Your task to perform on an android device: Find coffee shops on Maps Image 0: 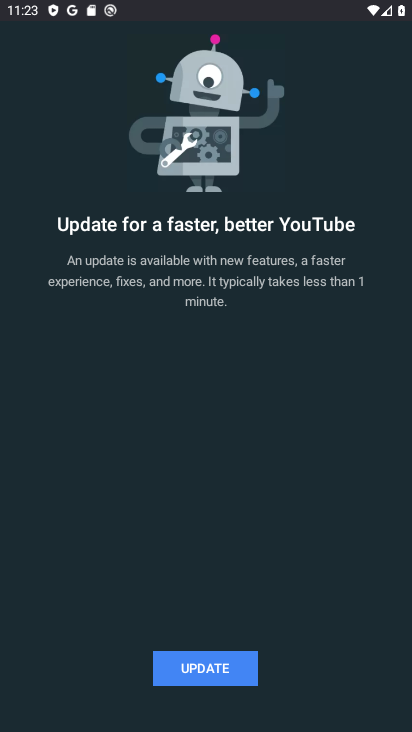
Step 0: press home button
Your task to perform on an android device: Find coffee shops on Maps Image 1: 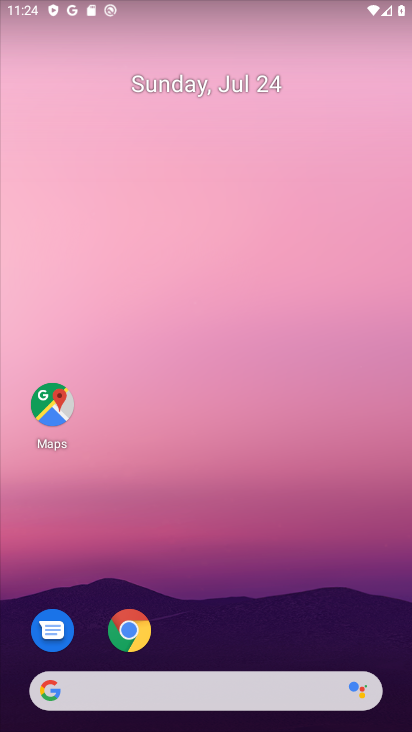
Step 1: click (29, 403)
Your task to perform on an android device: Find coffee shops on Maps Image 2: 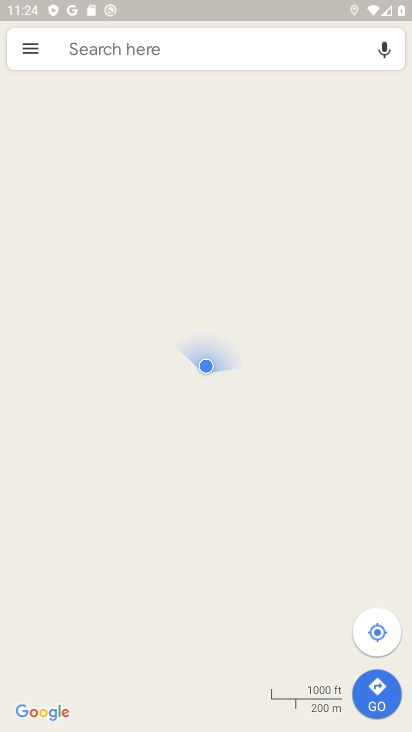
Step 2: click (122, 54)
Your task to perform on an android device: Find coffee shops on Maps Image 3: 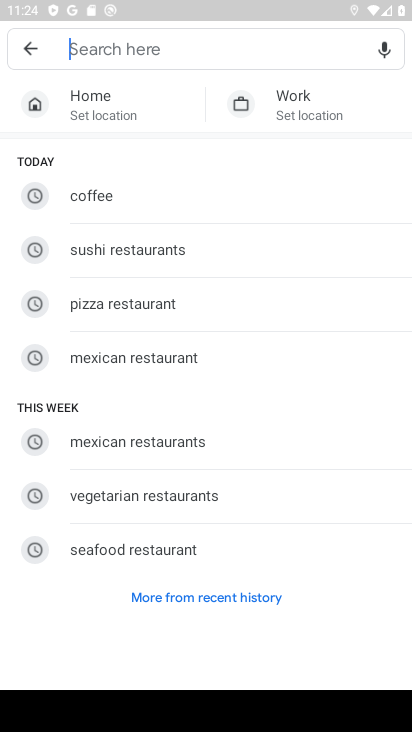
Step 3: type "coffee shops "
Your task to perform on an android device: Find coffee shops on Maps Image 4: 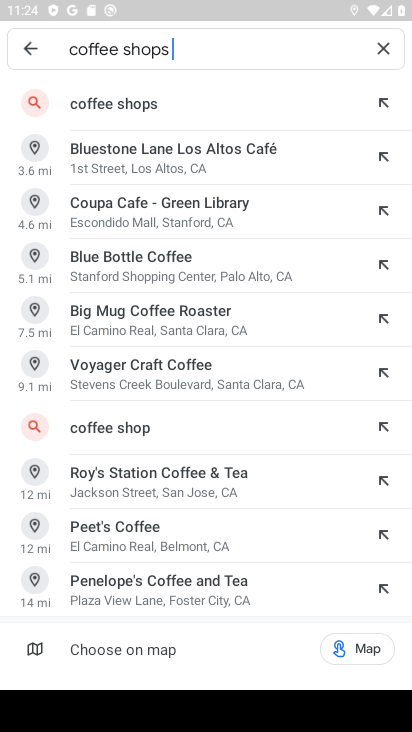
Step 4: click (134, 105)
Your task to perform on an android device: Find coffee shops on Maps Image 5: 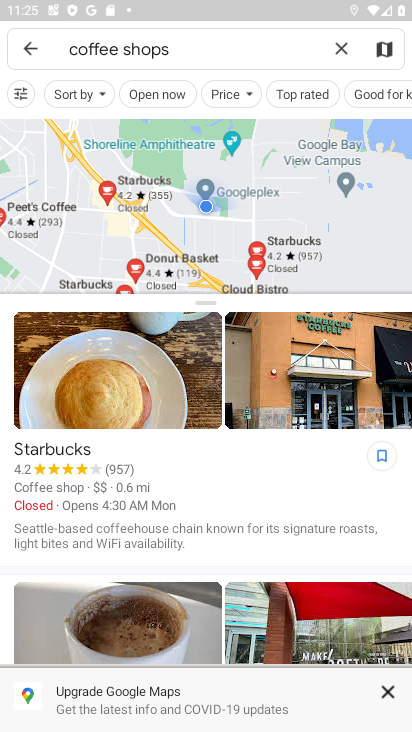
Step 5: task complete